Your task to perform on an android device: Show me productivity apps on the Play Store Image 0: 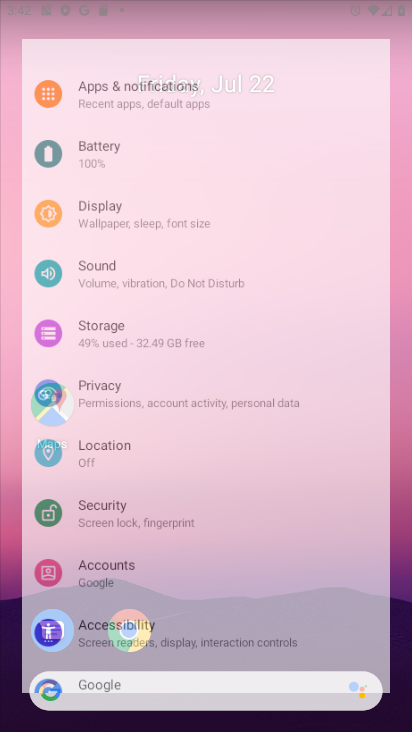
Step 0: drag from (151, 678) to (197, 236)
Your task to perform on an android device: Show me productivity apps on the Play Store Image 1: 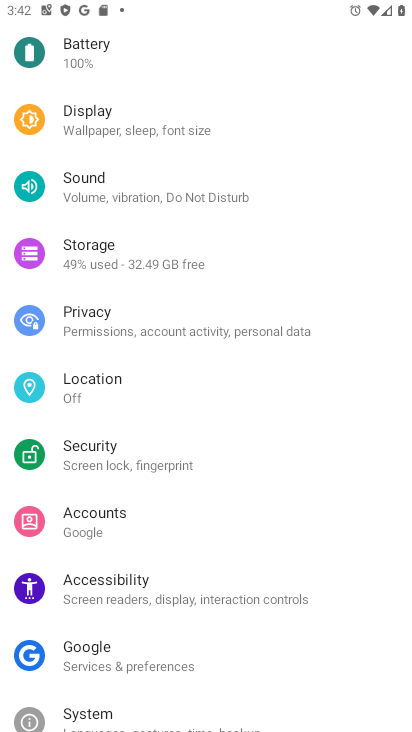
Step 1: press home button
Your task to perform on an android device: Show me productivity apps on the Play Store Image 2: 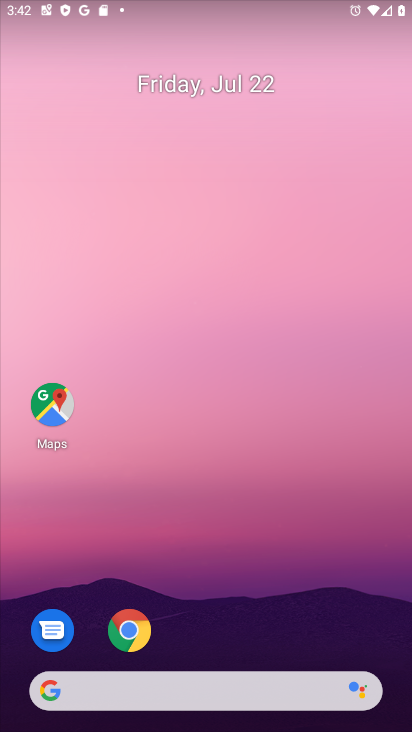
Step 2: drag from (182, 663) to (126, 161)
Your task to perform on an android device: Show me productivity apps on the Play Store Image 3: 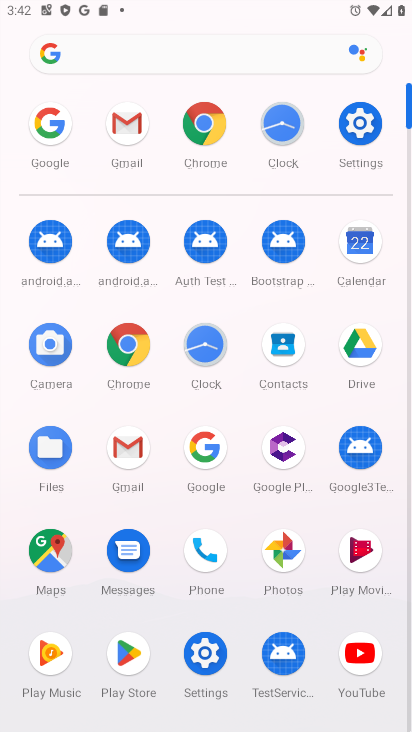
Step 3: click (133, 676)
Your task to perform on an android device: Show me productivity apps on the Play Store Image 4: 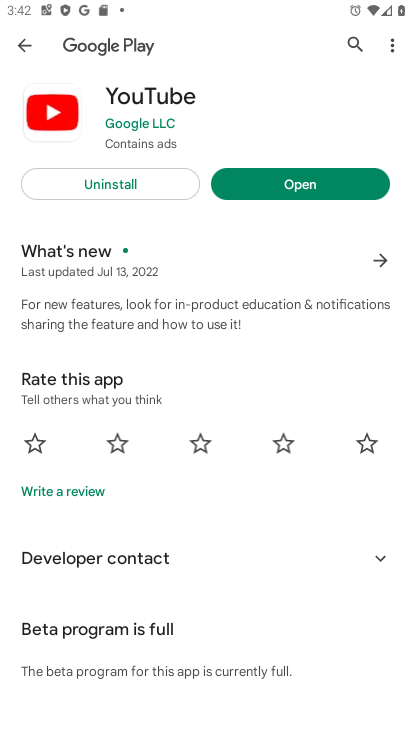
Step 4: click (17, 42)
Your task to perform on an android device: Show me productivity apps on the Play Store Image 5: 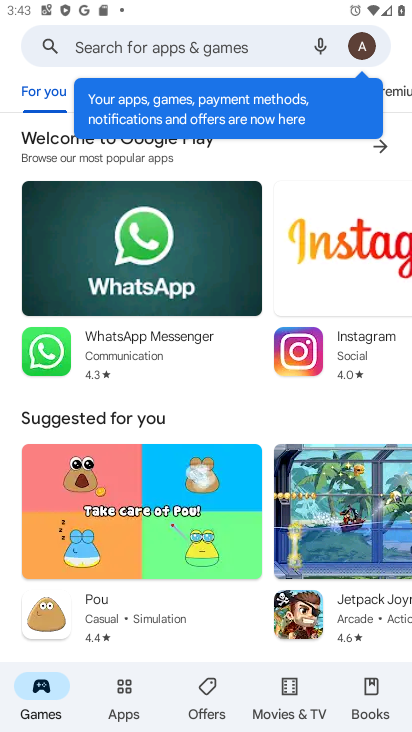
Step 5: drag from (181, 598) to (135, 171)
Your task to perform on an android device: Show me productivity apps on the Play Store Image 6: 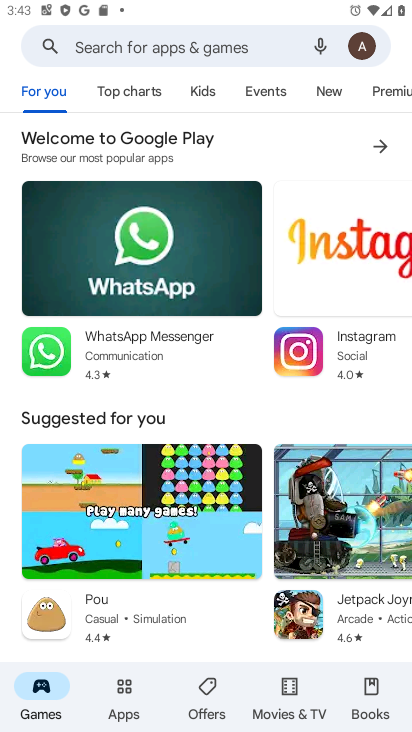
Step 6: click (117, 696)
Your task to perform on an android device: Show me productivity apps on the Play Store Image 7: 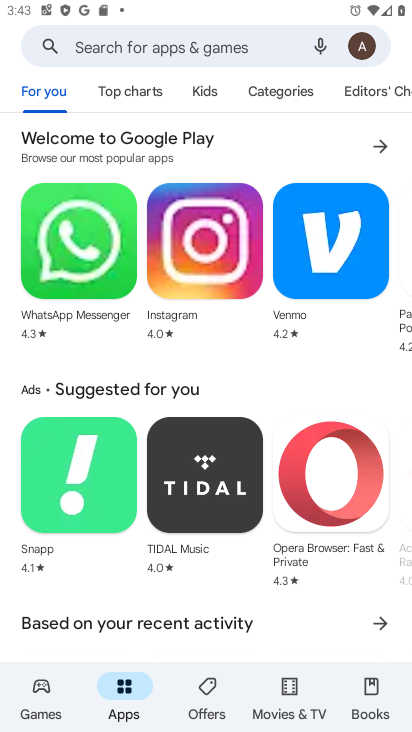
Step 7: click (289, 84)
Your task to perform on an android device: Show me productivity apps on the Play Store Image 8: 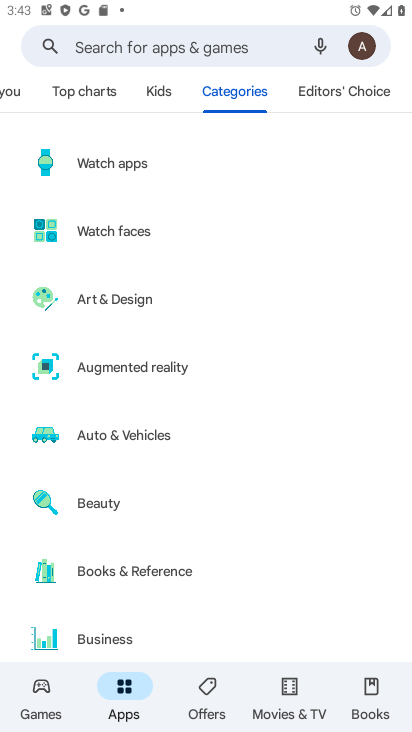
Step 8: drag from (161, 582) to (132, 151)
Your task to perform on an android device: Show me productivity apps on the Play Store Image 9: 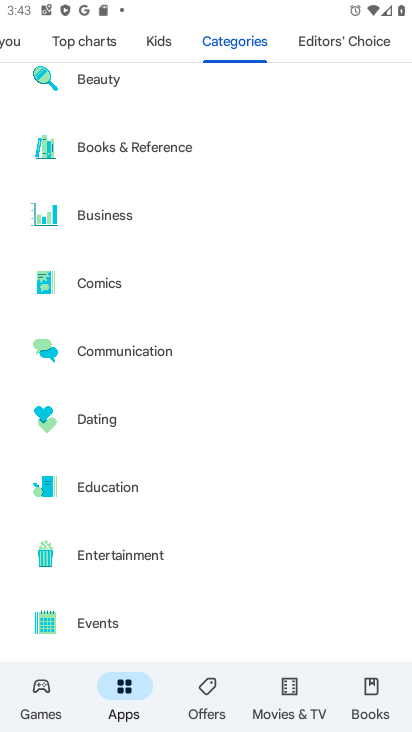
Step 9: drag from (149, 578) to (98, 281)
Your task to perform on an android device: Show me productivity apps on the Play Store Image 10: 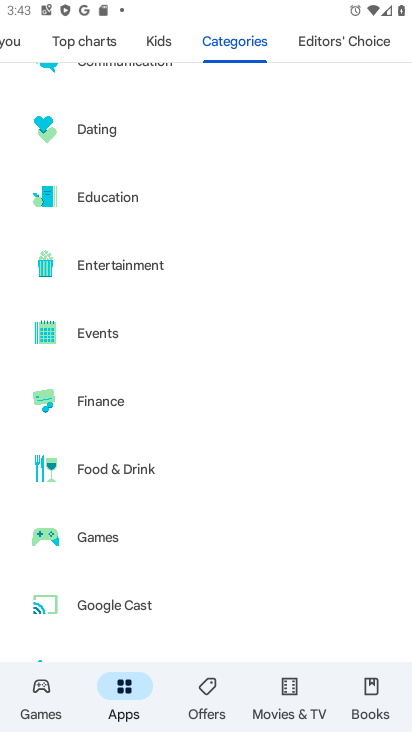
Step 10: drag from (145, 635) to (111, 113)
Your task to perform on an android device: Show me productivity apps on the Play Store Image 11: 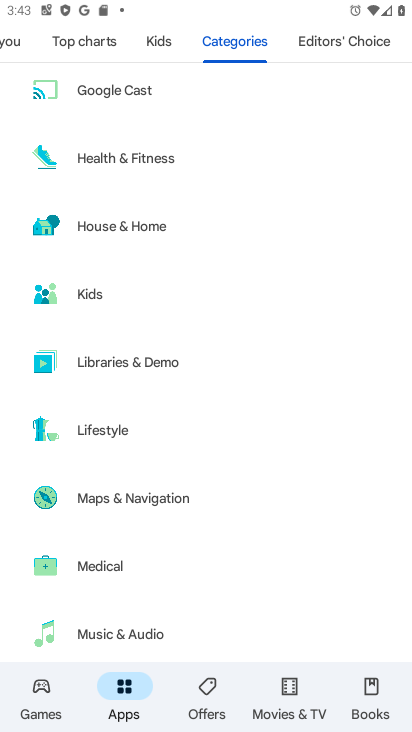
Step 11: drag from (145, 581) to (109, 166)
Your task to perform on an android device: Show me productivity apps on the Play Store Image 12: 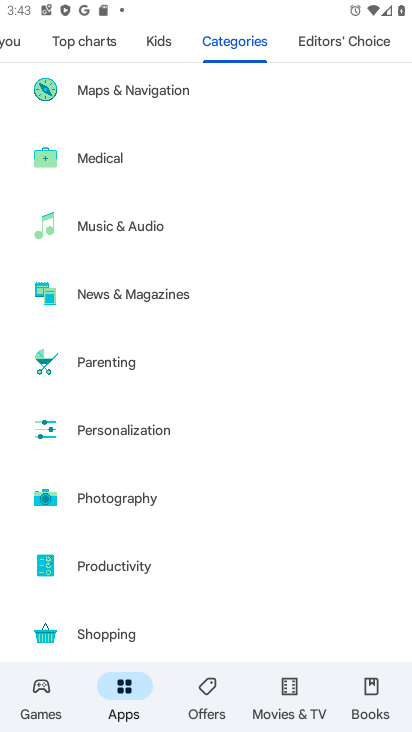
Step 12: click (142, 562)
Your task to perform on an android device: Show me productivity apps on the Play Store Image 13: 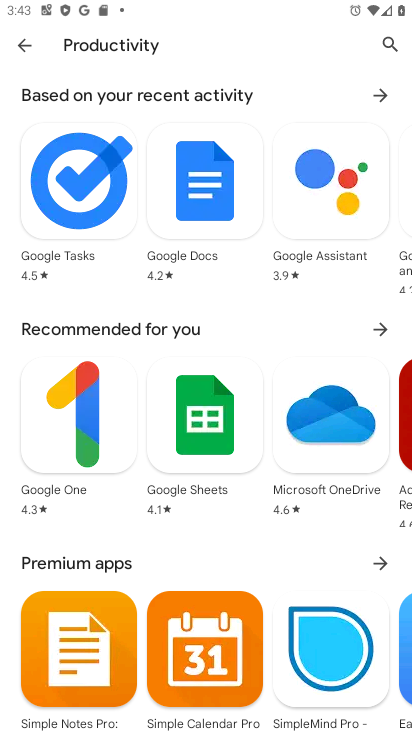
Step 13: task complete